Your task to perform on an android device: toggle location history Image 0: 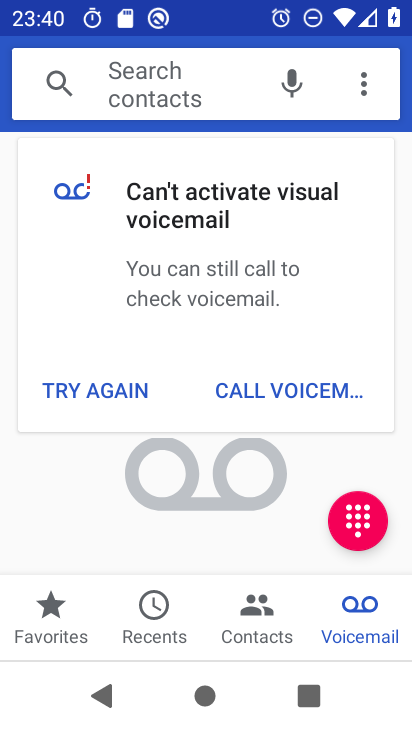
Step 0: press home button
Your task to perform on an android device: toggle location history Image 1: 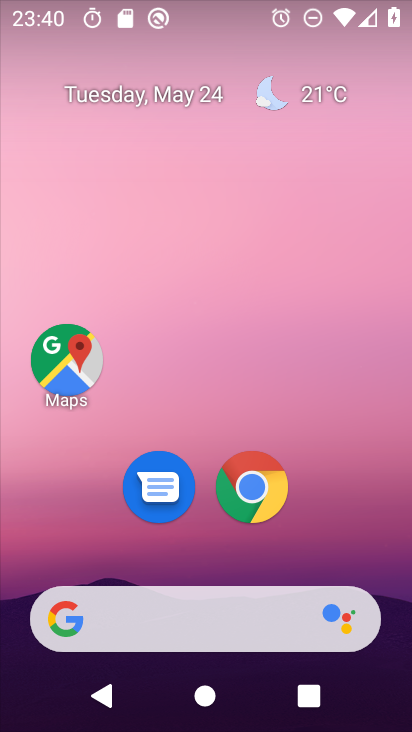
Step 1: click (63, 368)
Your task to perform on an android device: toggle location history Image 2: 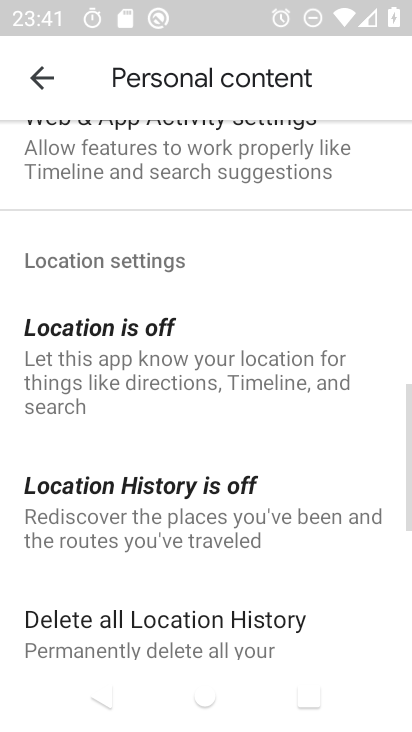
Step 2: click (135, 515)
Your task to perform on an android device: toggle location history Image 3: 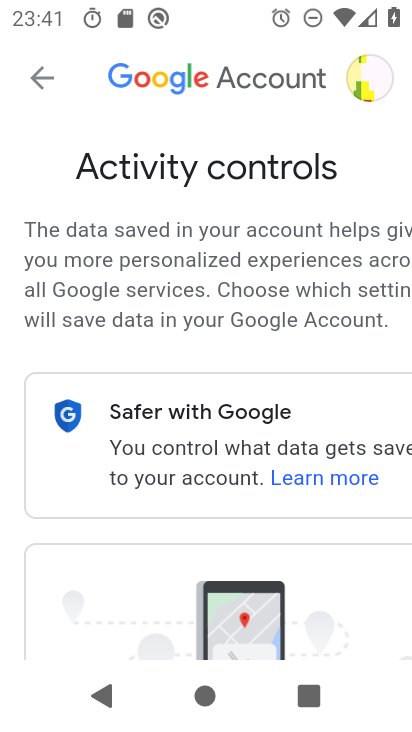
Step 3: drag from (159, 555) to (181, 3)
Your task to perform on an android device: toggle location history Image 4: 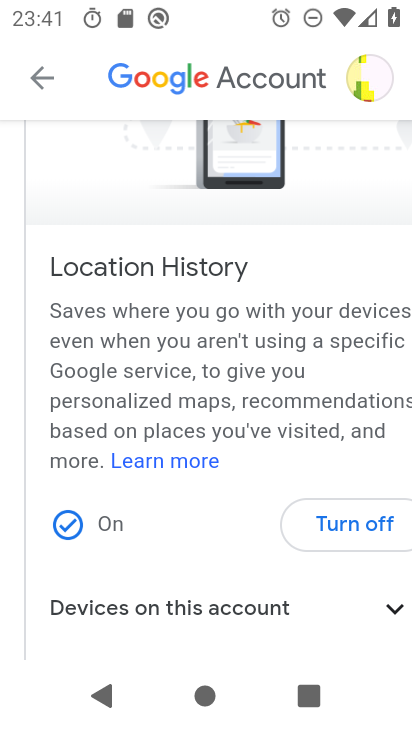
Step 4: click (349, 522)
Your task to perform on an android device: toggle location history Image 5: 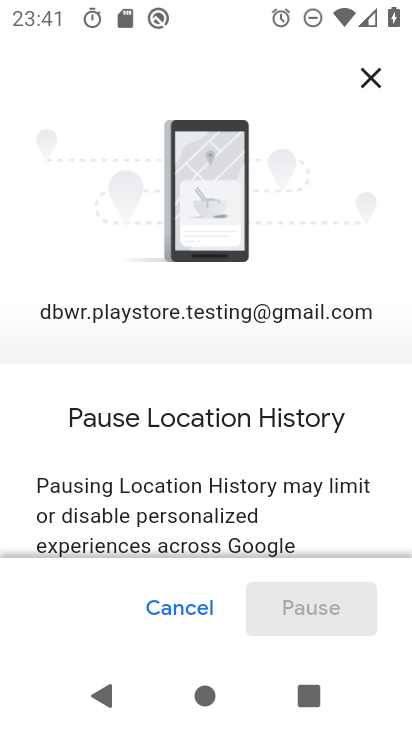
Step 5: drag from (185, 529) to (167, 12)
Your task to perform on an android device: toggle location history Image 6: 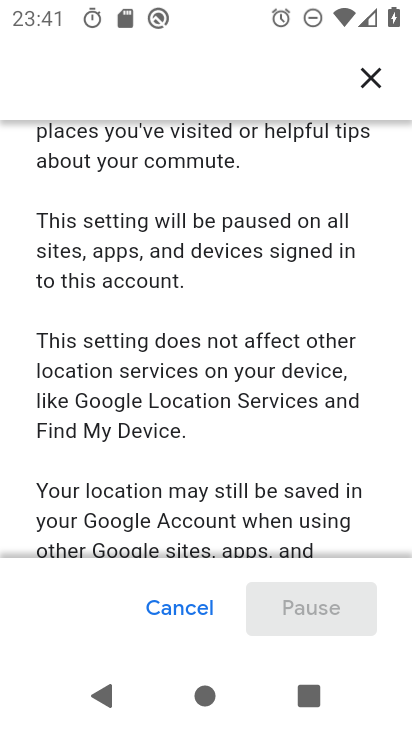
Step 6: drag from (216, 479) to (169, 34)
Your task to perform on an android device: toggle location history Image 7: 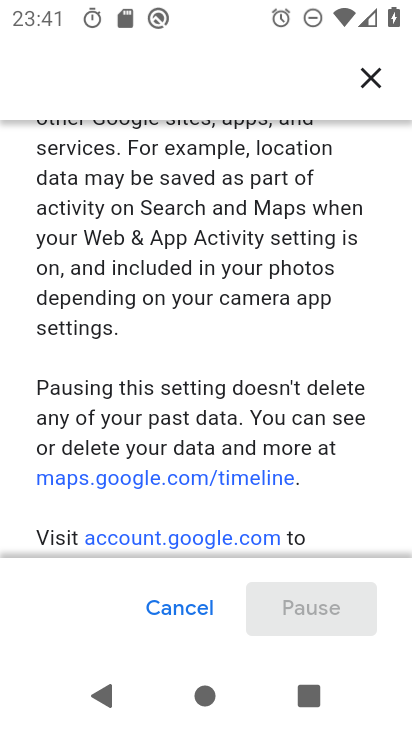
Step 7: drag from (243, 450) to (219, 165)
Your task to perform on an android device: toggle location history Image 8: 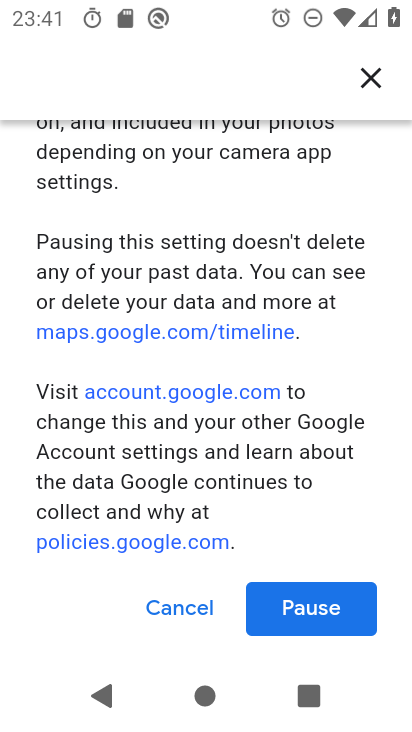
Step 8: click (309, 627)
Your task to perform on an android device: toggle location history Image 9: 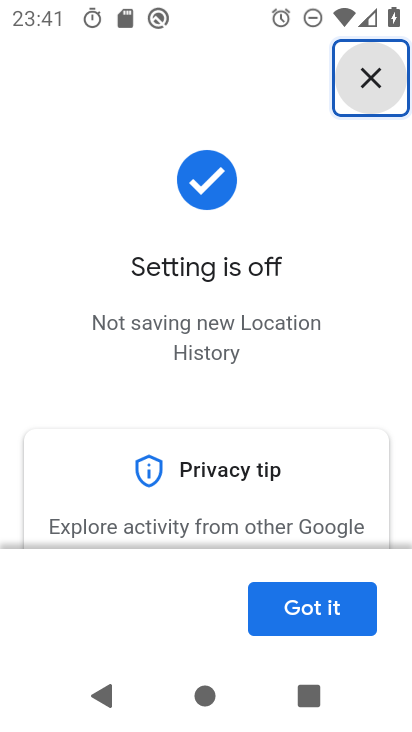
Step 9: click (322, 607)
Your task to perform on an android device: toggle location history Image 10: 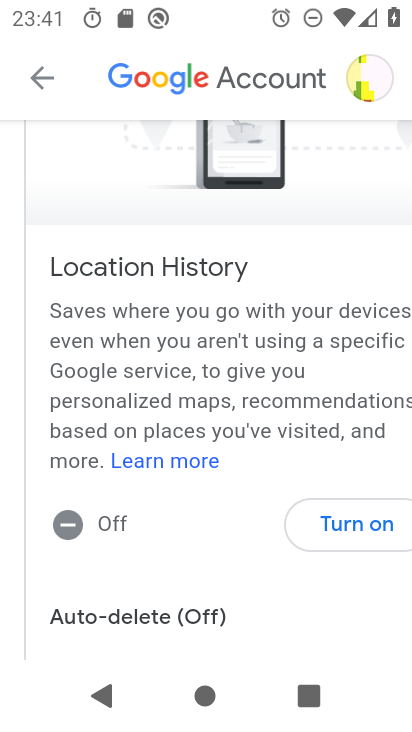
Step 10: task complete